Your task to perform on an android device: Go to Yahoo.com Image 0: 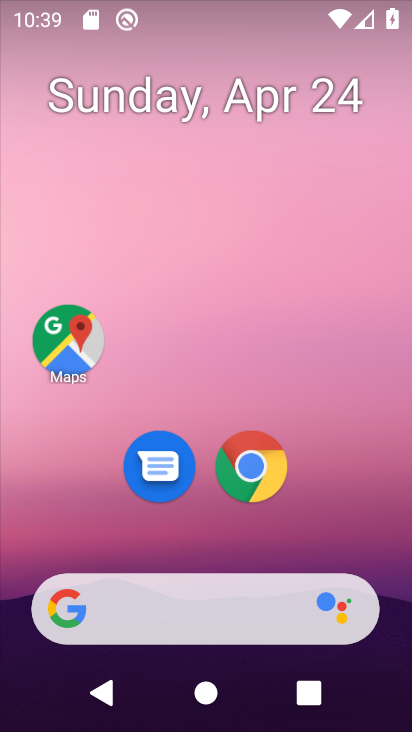
Step 0: click (252, 469)
Your task to perform on an android device: Go to Yahoo.com Image 1: 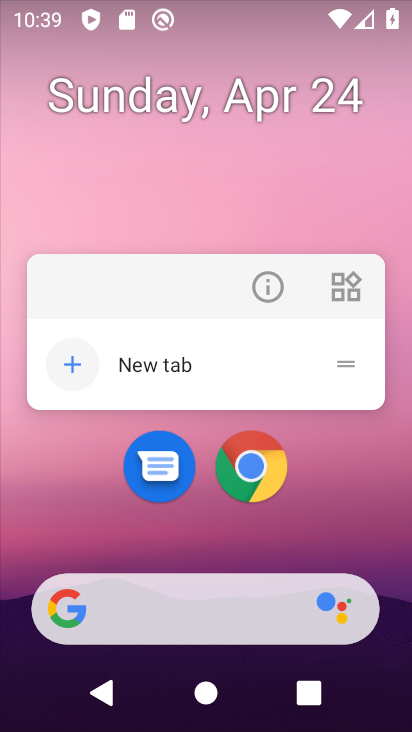
Step 1: click (252, 469)
Your task to perform on an android device: Go to Yahoo.com Image 2: 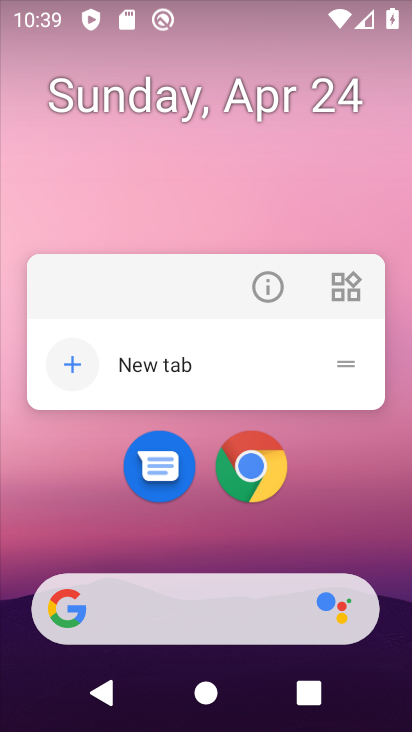
Step 2: click (252, 477)
Your task to perform on an android device: Go to Yahoo.com Image 3: 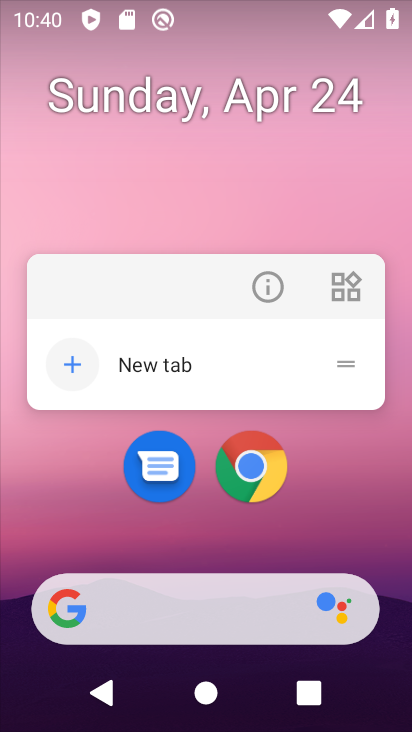
Step 3: click (252, 477)
Your task to perform on an android device: Go to Yahoo.com Image 4: 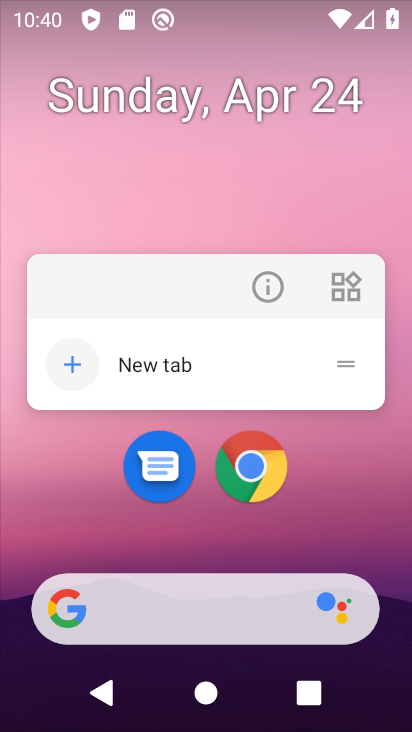
Step 4: click (257, 493)
Your task to perform on an android device: Go to Yahoo.com Image 5: 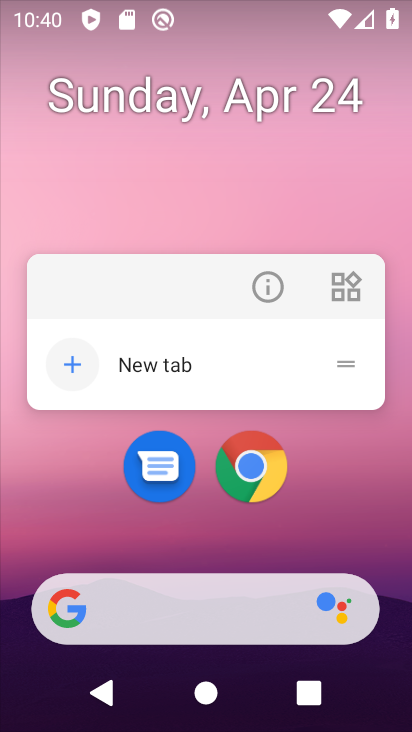
Step 5: click (253, 468)
Your task to perform on an android device: Go to Yahoo.com Image 6: 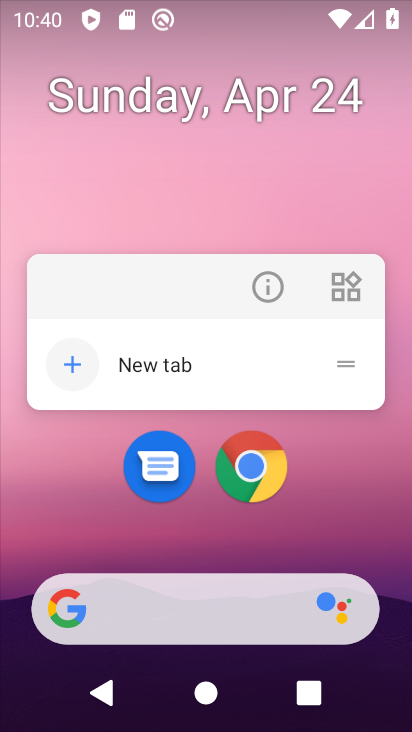
Step 6: click (249, 485)
Your task to perform on an android device: Go to Yahoo.com Image 7: 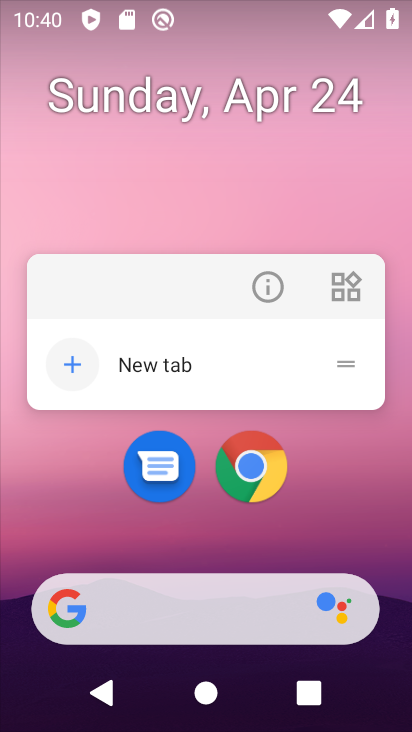
Step 7: click (248, 462)
Your task to perform on an android device: Go to Yahoo.com Image 8: 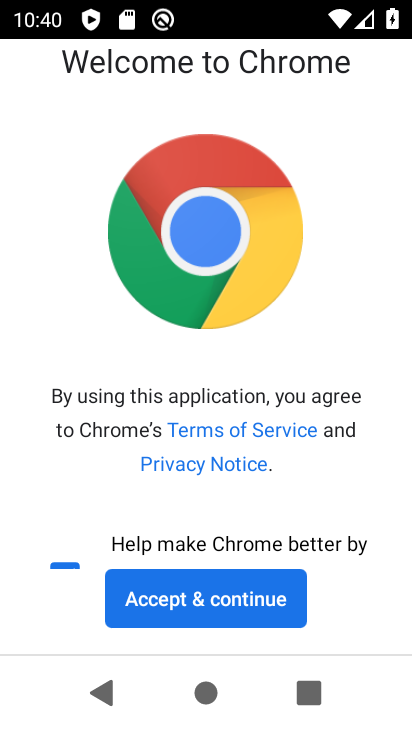
Step 8: click (195, 612)
Your task to perform on an android device: Go to Yahoo.com Image 9: 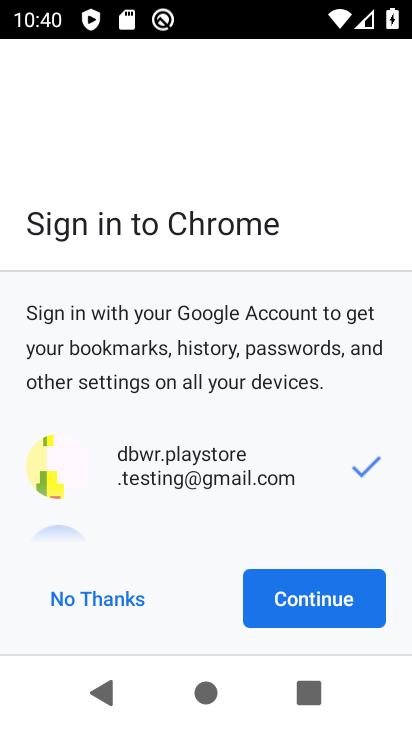
Step 9: click (78, 602)
Your task to perform on an android device: Go to Yahoo.com Image 10: 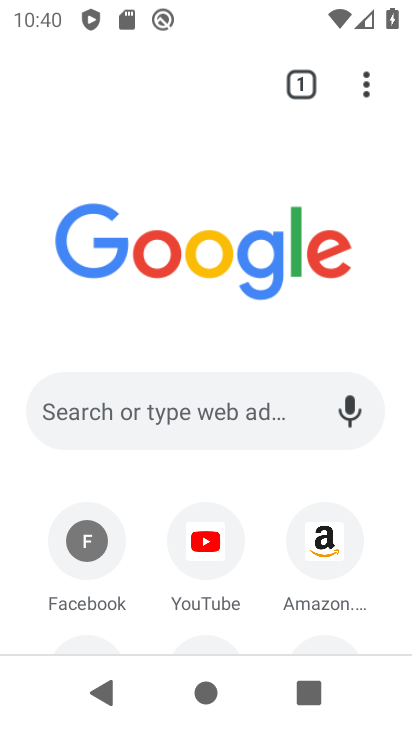
Step 10: drag from (388, 578) to (398, 469)
Your task to perform on an android device: Go to Yahoo.com Image 11: 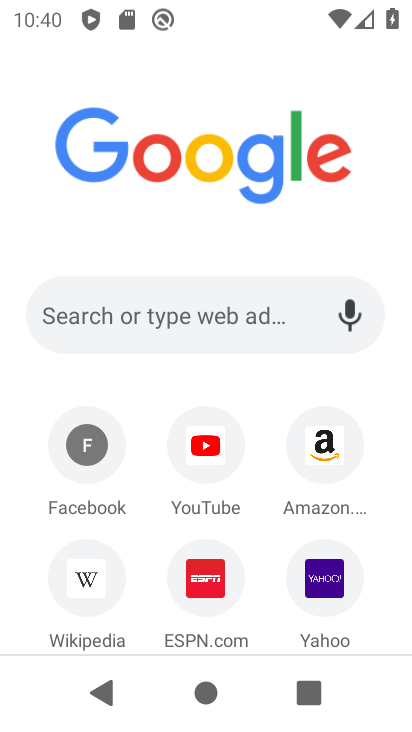
Step 11: click (332, 589)
Your task to perform on an android device: Go to Yahoo.com Image 12: 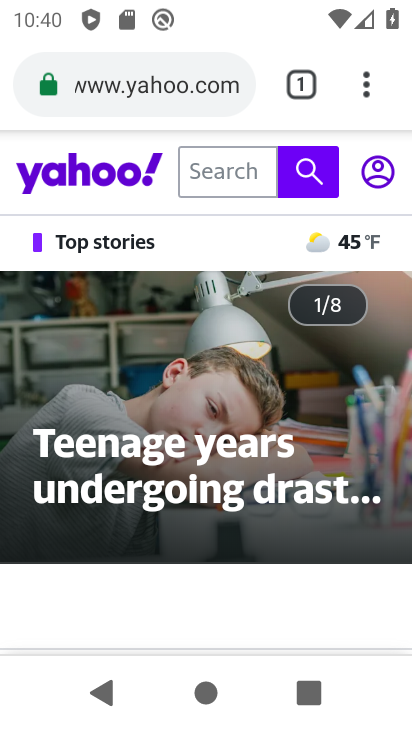
Step 12: task complete